Your task to perform on an android device: change the clock style Image 0: 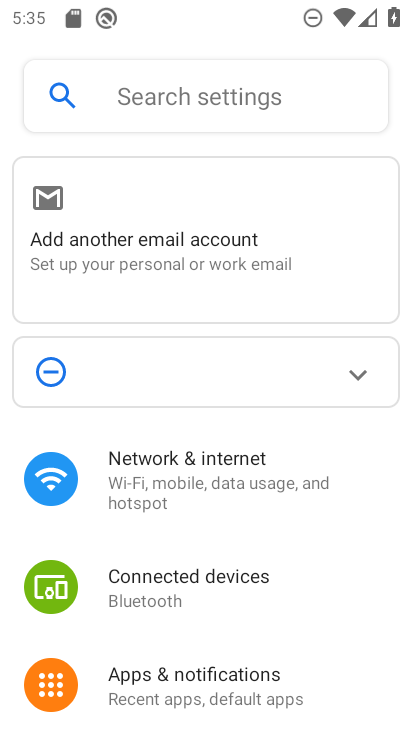
Step 0: press back button
Your task to perform on an android device: change the clock style Image 1: 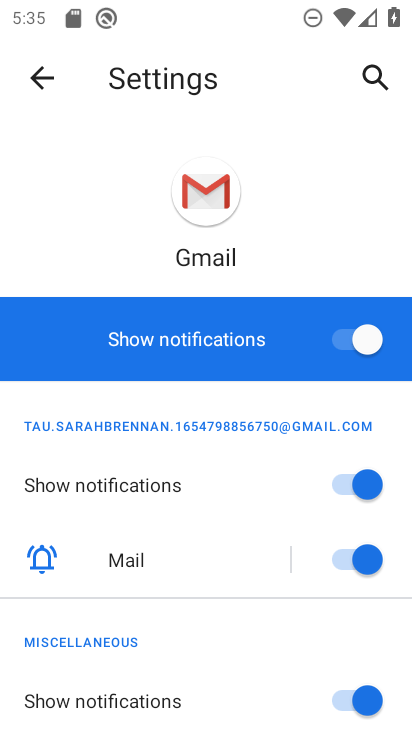
Step 1: press back button
Your task to perform on an android device: change the clock style Image 2: 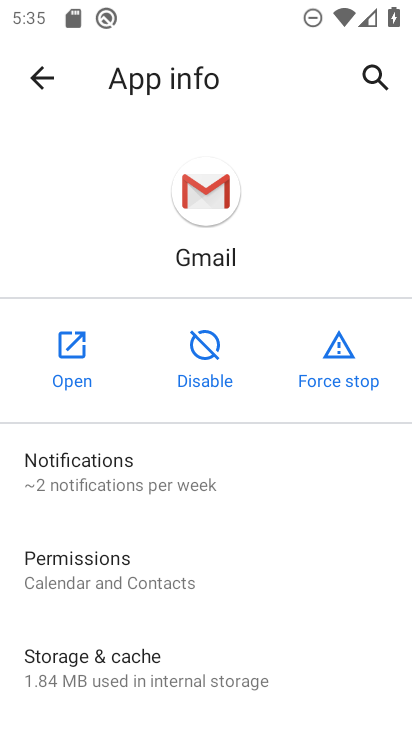
Step 2: press home button
Your task to perform on an android device: change the clock style Image 3: 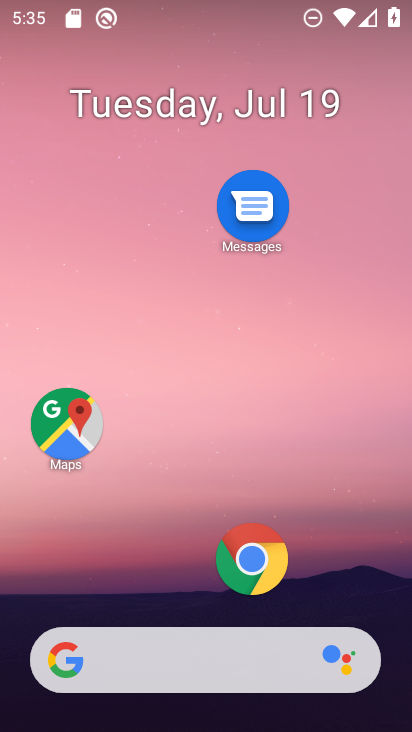
Step 3: drag from (155, 581) to (210, 22)
Your task to perform on an android device: change the clock style Image 4: 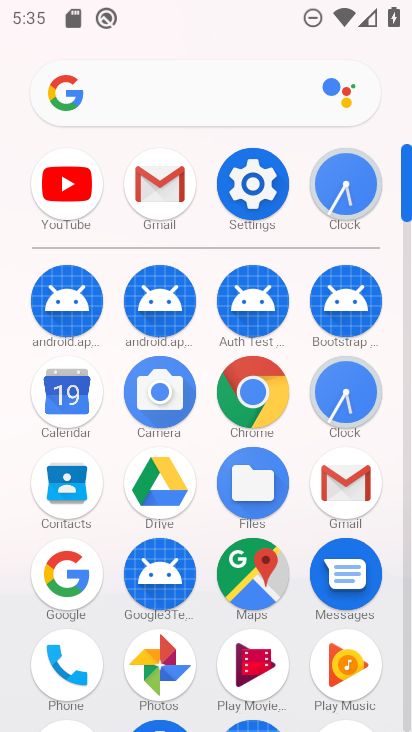
Step 4: click (339, 183)
Your task to perform on an android device: change the clock style Image 5: 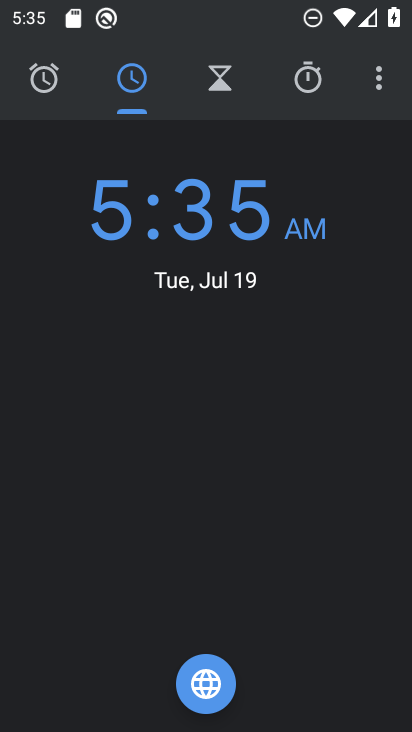
Step 5: click (376, 85)
Your task to perform on an android device: change the clock style Image 6: 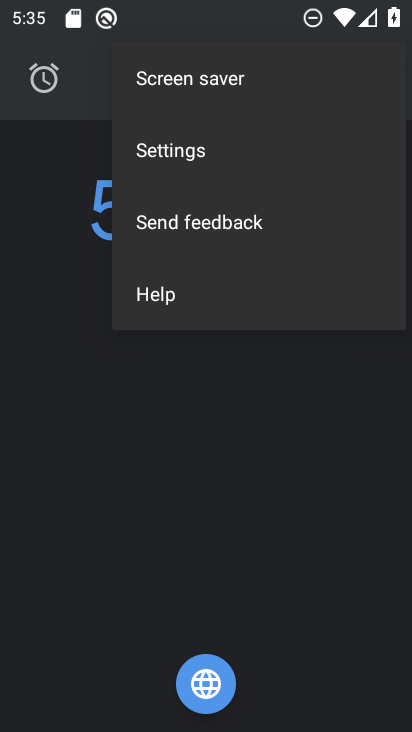
Step 6: click (145, 111)
Your task to perform on an android device: change the clock style Image 7: 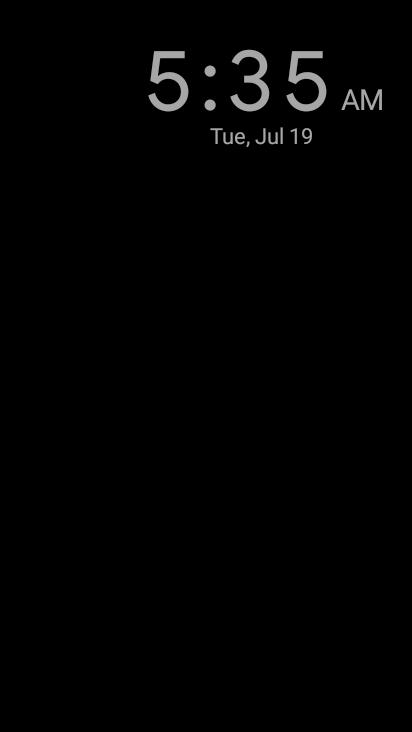
Step 7: press back button
Your task to perform on an android device: change the clock style Image 8: 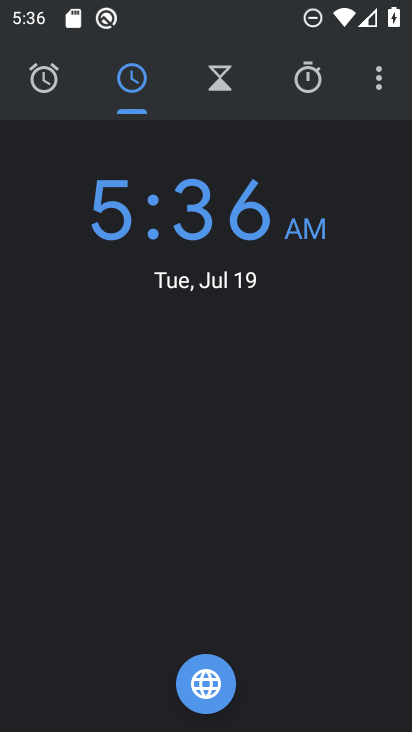
Step 8: click (375, 79)
Your task to perform on an android device: change the clock style Image 9: 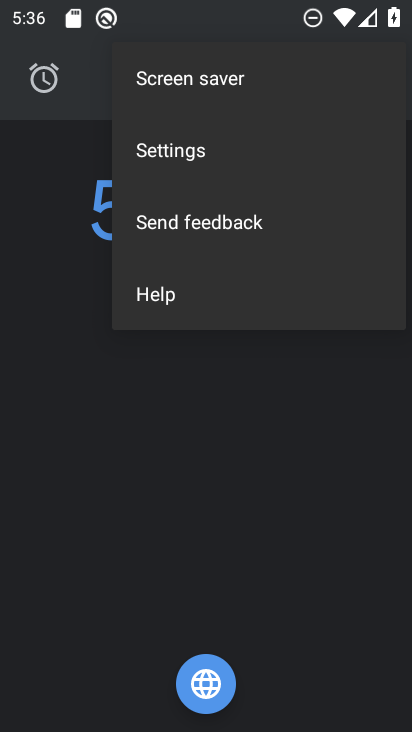
Step 9: click (179, 151)
Your task to perform on an android device: change the clock style Image 10: 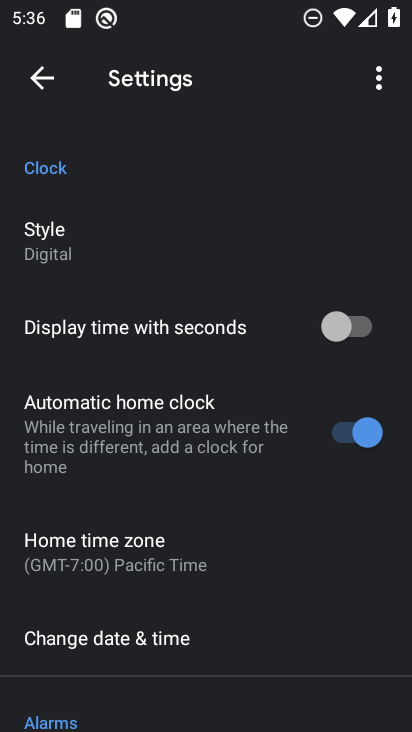
Step 10: click (106, 238)
Your task to perform on an android device: change the clock style Image 11: 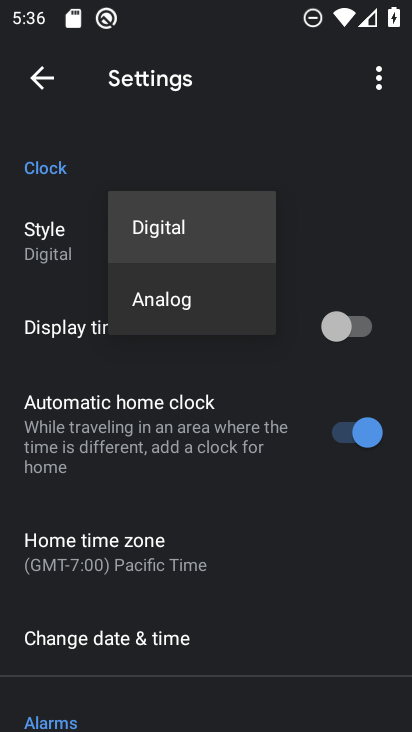
Step 11: click (170, 292)
Your task to perform on an android device: change the clock style Image 12: 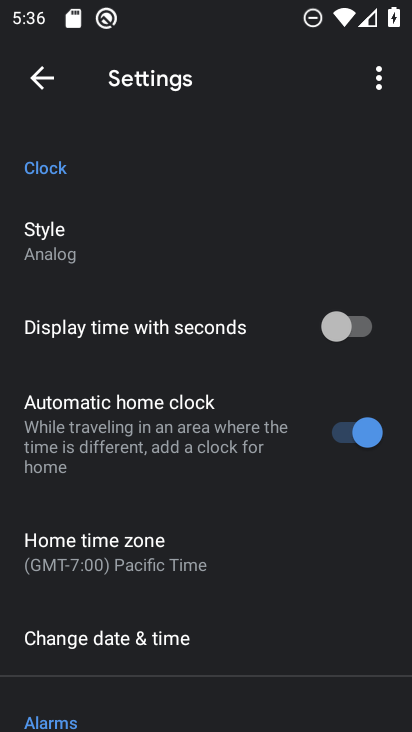
Step 12: task complete